Your task to perform on an android device: Go to wifi settings Image 0: 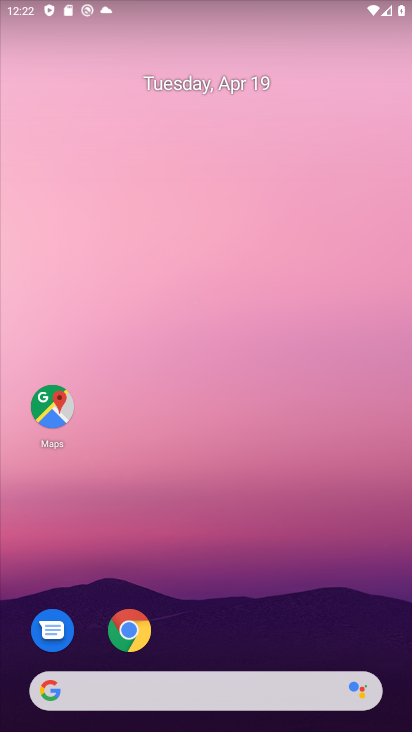
Step 0: drag from (166, 669) to (189, 105)
Your task to perform on an android device: Go to wifi settings Image 1: 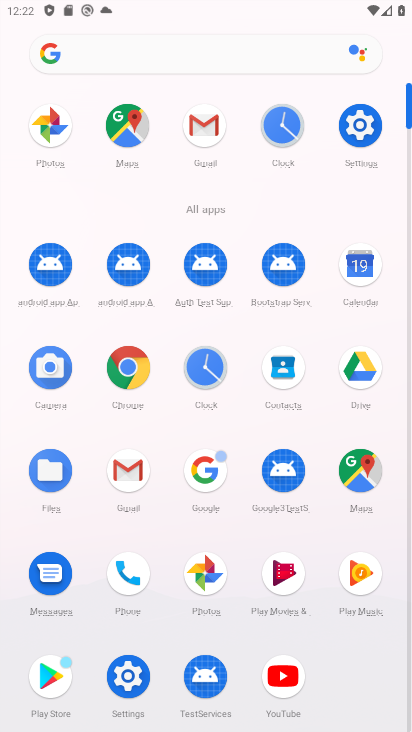
Step 1: click (352, 131)
Your task to perform on an android device: Go to wifi settings Image 2: 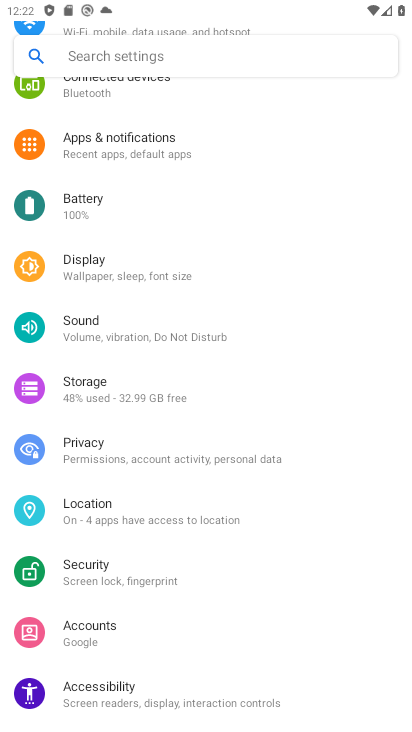
Step 2: drag from (268, 153) to (200, 377)
Your task to perform on an android device: Go to wifi settings Image 3: 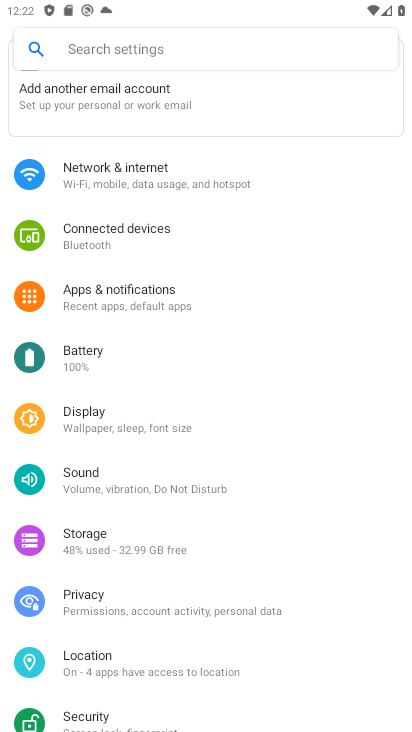
Step 3: click (222, 180)
Your task to perform on an android device: Go to wifi settings Image 4: 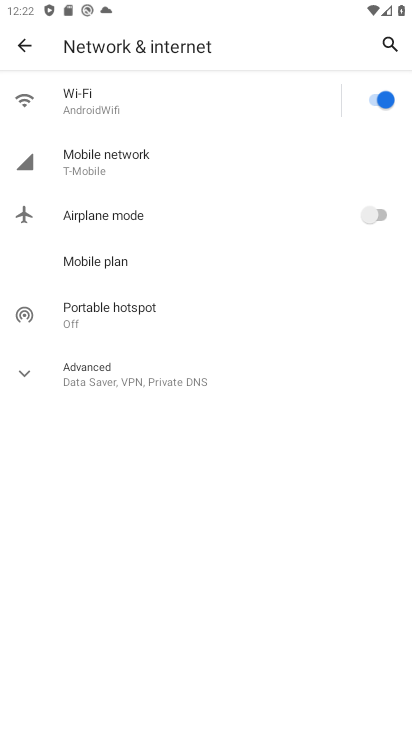
Step 4: click (172, 103)
Your task to perform on an android device: Go to wifi settings Image 5: 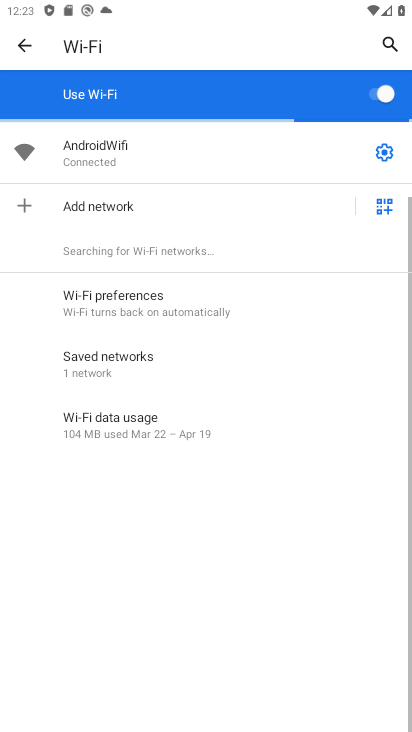
Step 5: task complete